Your task to perform on an android device: turn notification dots off Image 0: 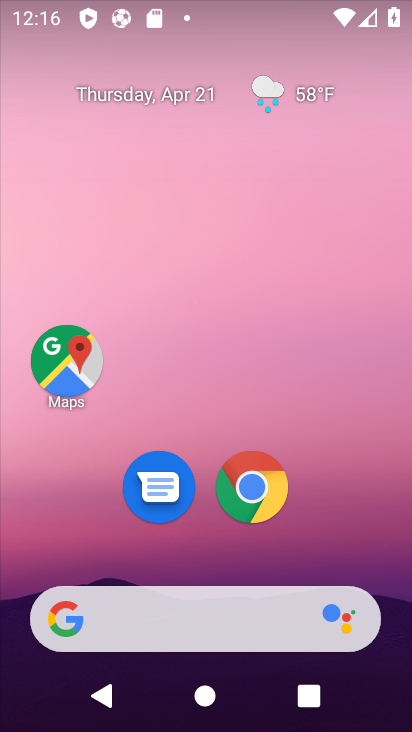
Step 0: drag from (344, 503) to (311, 12)
Your task to perform on an android device: turn notification dots off Image 1: 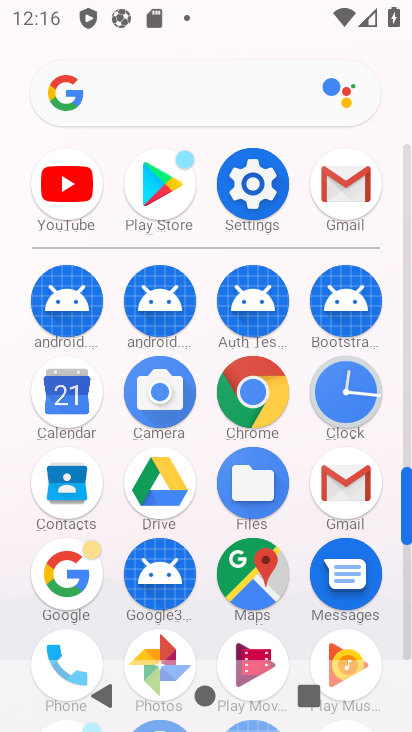
Step 1: click (245, 226)
Your task to perform on an android device: turn notification dots off Image 2: 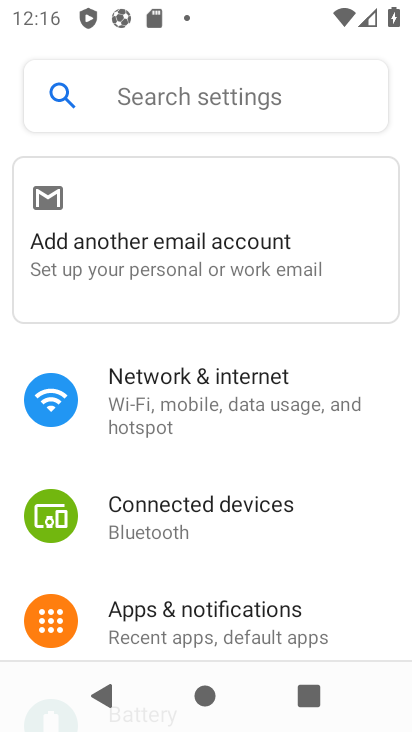
Step 2: click (181, 622)
Your task to perform on an android device: turn notification dots off Image 3: 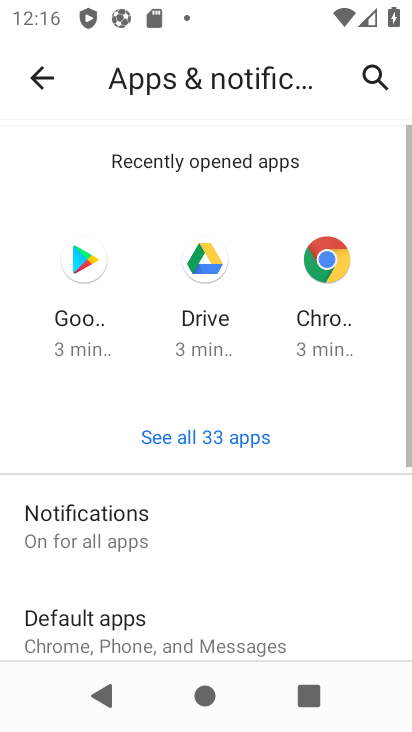
Step 3: click (106, 530)
Your task to perform on an android device: turn notification dots off Image 4: 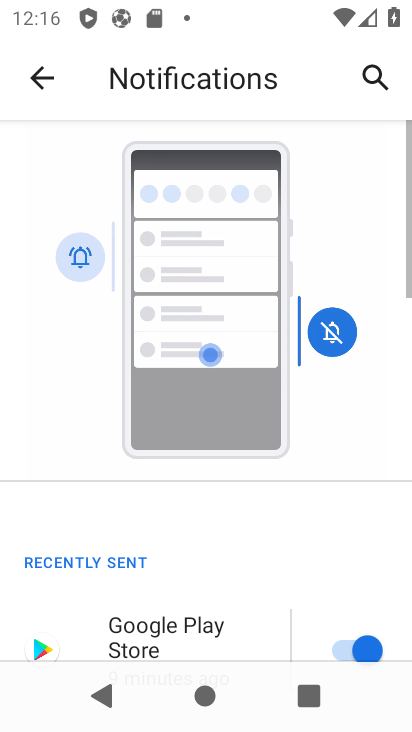
Step 4: drag from (179, 585) to (174, 91)
Your task to perform on an android device: turn notification dots off Image 5: 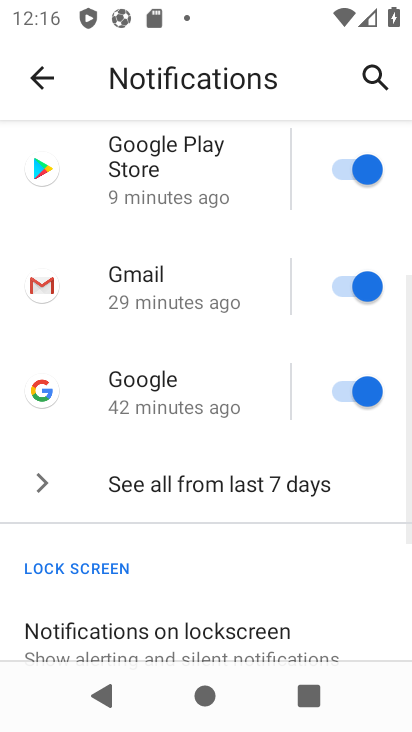
Step 5: drag from (173, 473) to (169, 123)
Your task to perform on an android device: turn notification dots off Image 6: 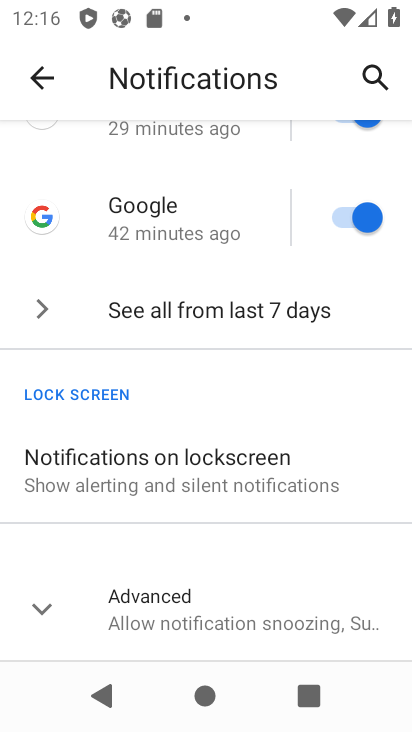
Step 6: click (39, 618)
Your task to perform on an android device: turn notification dots off Image 7: 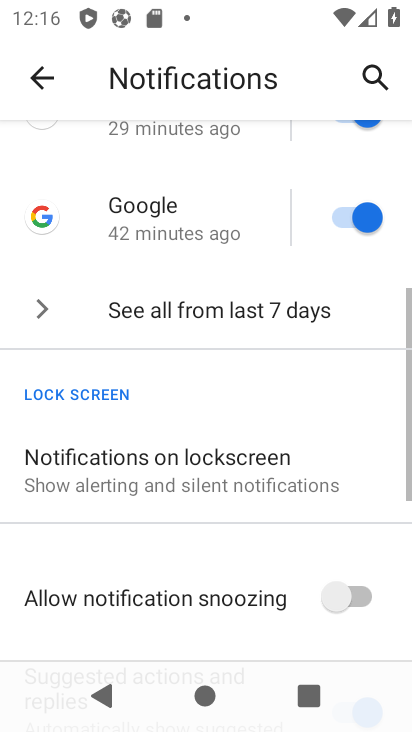
Step 7: drag from (149, 604) to (132, 118)
Your task to perform on an android device: turn notification dots off Image 8: 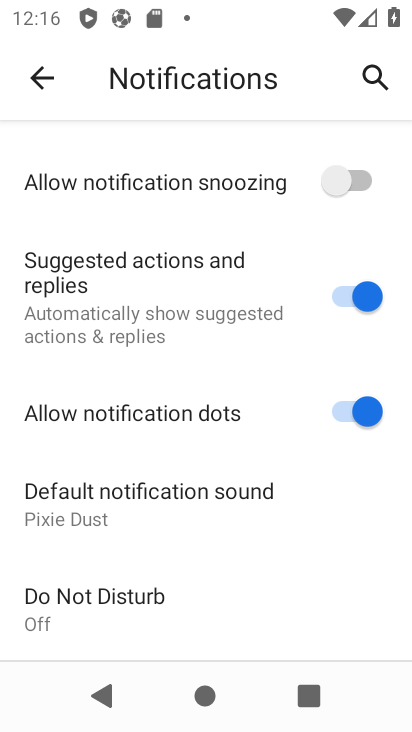
Step 8: click (357, 414)
Your task to perform on an android device: turn notification dots off Image 9: 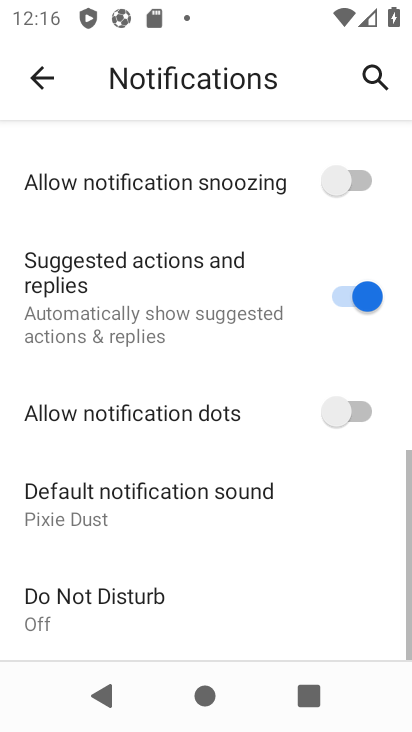
Step 9: task complete